Your task to perform on an android device: change the upload size in google photos Image 0: 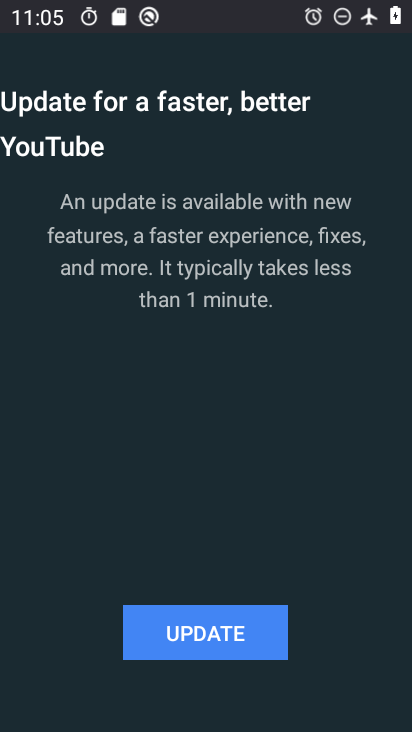
Step 0: press home button
Your task to perform on an android device: change the upload size in google photos Image 1: 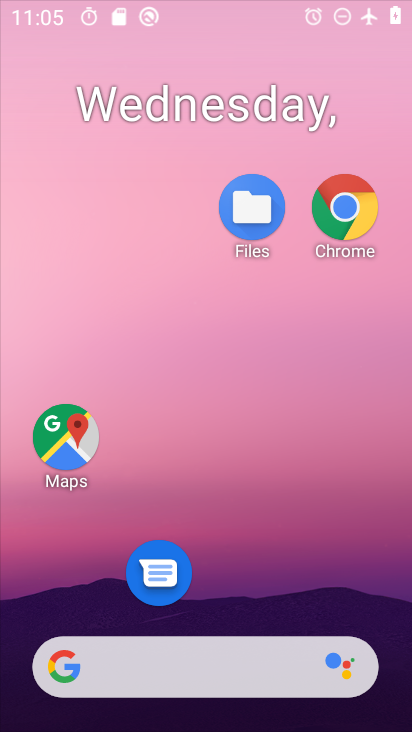
Step 1: drag from (299, 684) to (376, 190)
Your task to perform on an android device: change the upload size in google photos Image 2: 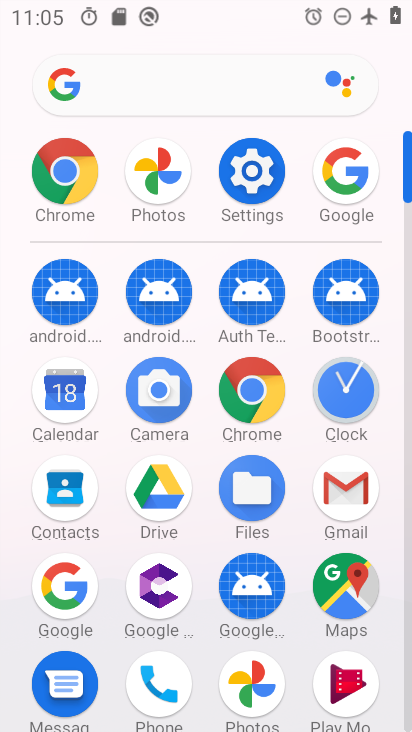
Step 2: drag from (278, 649) to (316, 243)
Your task to perform on an android device: change the upload size in google photos Image 3: 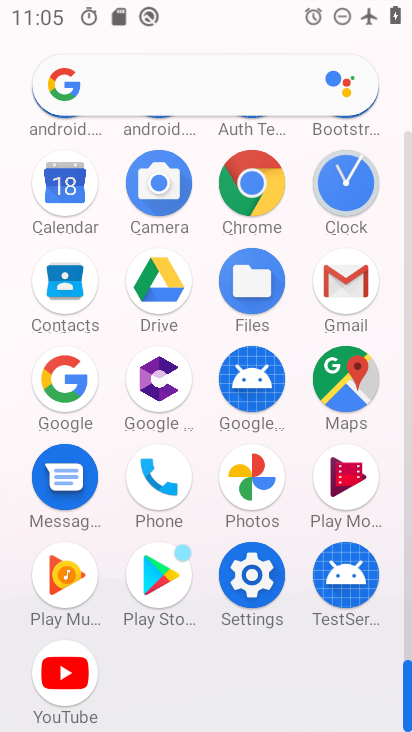
Step 3: click (268, 495)
Your task to perform on an android device: change the upload size in google photos Image 4: 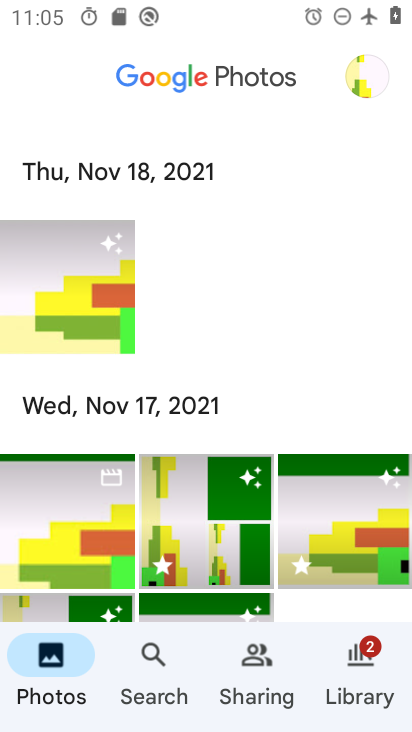
Step 4: click (354, 83)
Your task to perform on an android device: change the upload size in google photos Image 5: 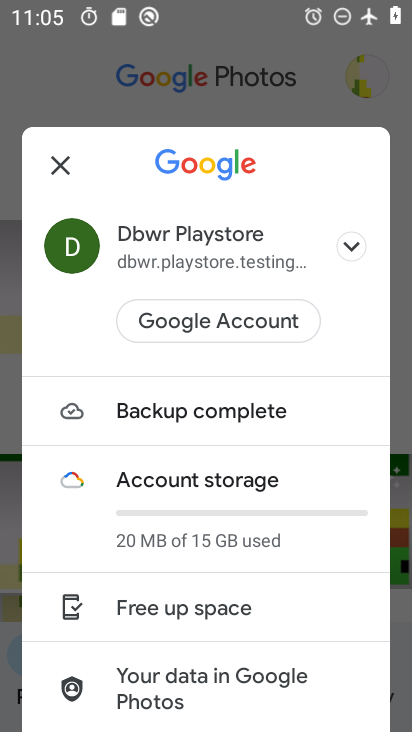
Step 5: drag from (180, 621) to (291, 292)
Your task to perform on an android device: change the upload size in google photos Image 6: 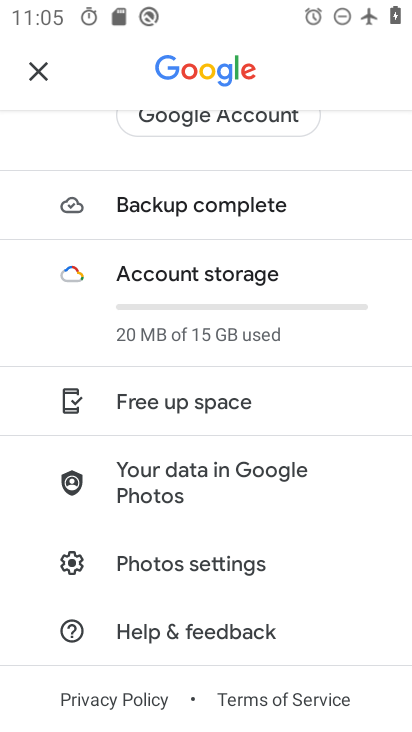
Step 6: click (218, 563)
Your task to perform on an android device: change the upload size in google photos Image 7: 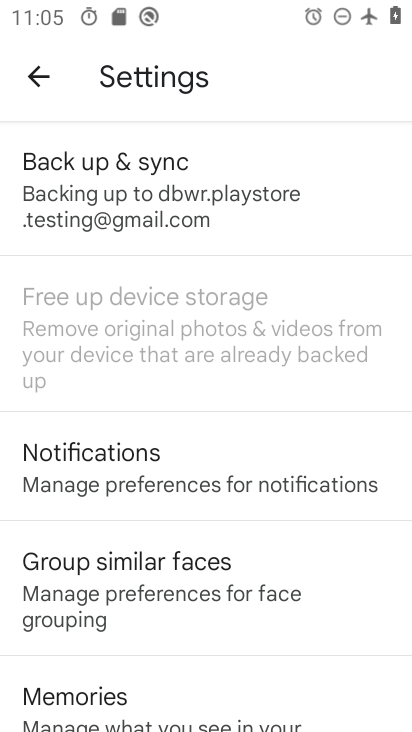
Step 7: click (241, 198)
Your task to perform on an android device: change the upload size in google photos Image 8: 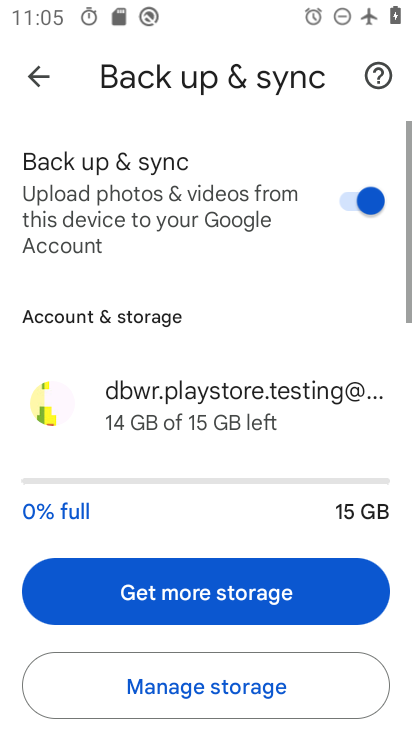
Step 8: drag from (261, 453) to (293, 206)
Your task to perform on an android device: change the upload size in google photos Image 9: 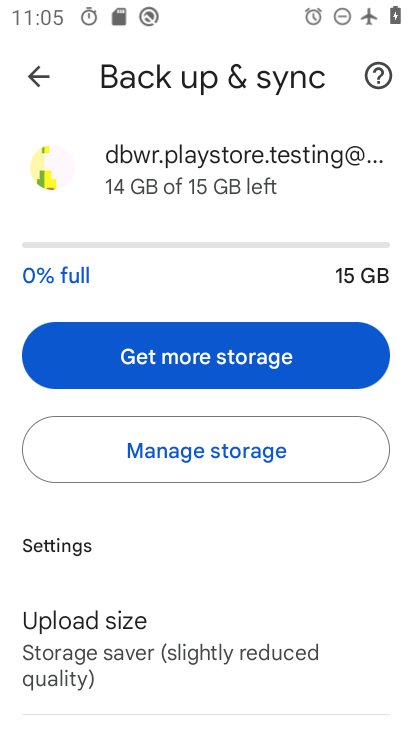
Step 9: click (131, 642)
Your task to perform on an android device: change the upload size in google photos Image 10: 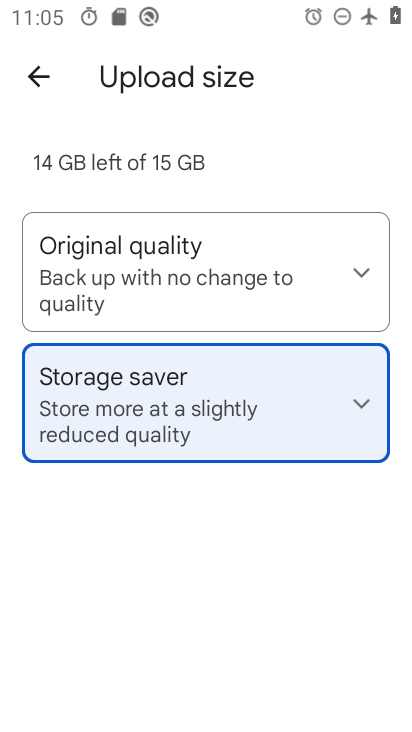
Step 10: click (251, 297)
Your task to perform on an android device: change the upload size in google photos Image 11: 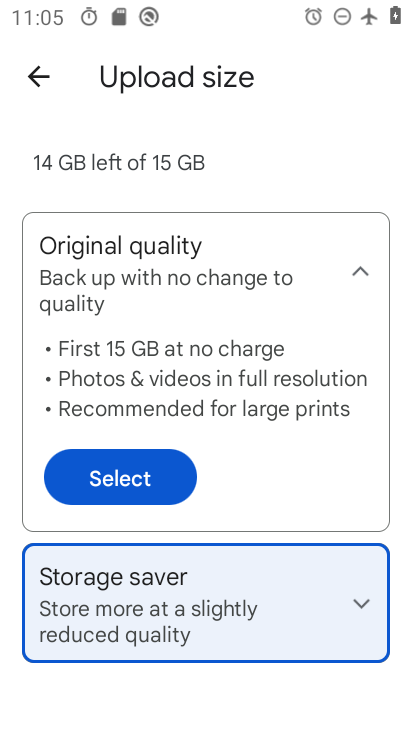
Step 11: click (143, 485)
Your task to perform on an android device: change the upload size in google photos Image 12: 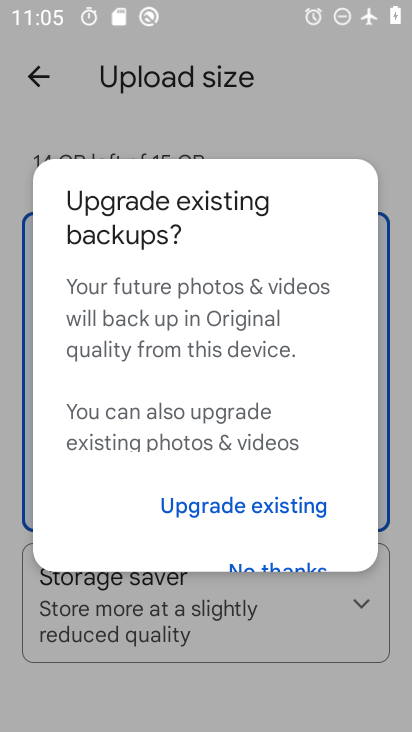
Step 12: drag from (309, 504) to (348, 280)
Your task to perform on an android device: change the upload size in google photos Image 13: 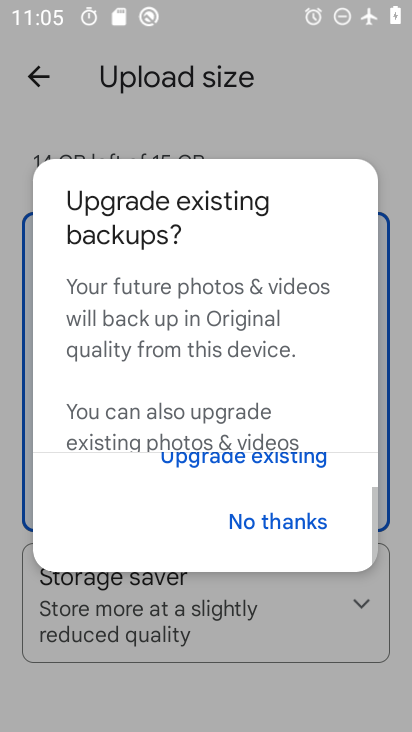
Step 13: click (279, 519)
Your task to perform on an android device: change the upload size in google photos Image 14: 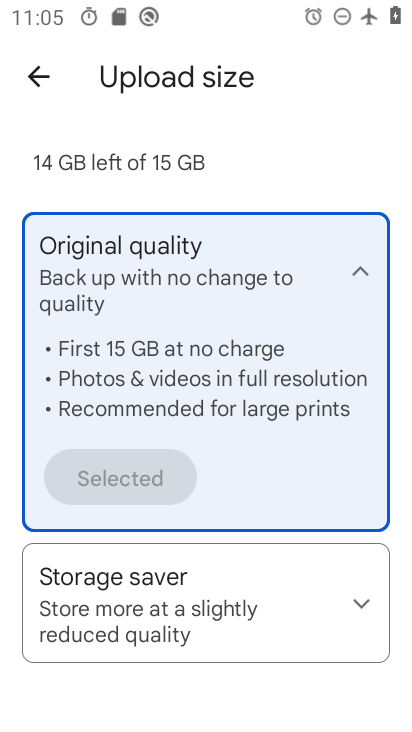
Step 14: task complete